Your task to perform on an android device: Open location settings Image 0: 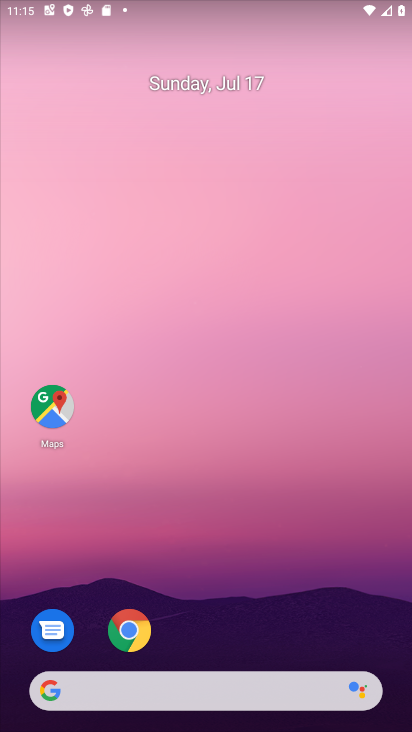
Step 0: drag from (302, 645) to (306, 45)
Your task to perform on an android device: Open location settings Image 1: 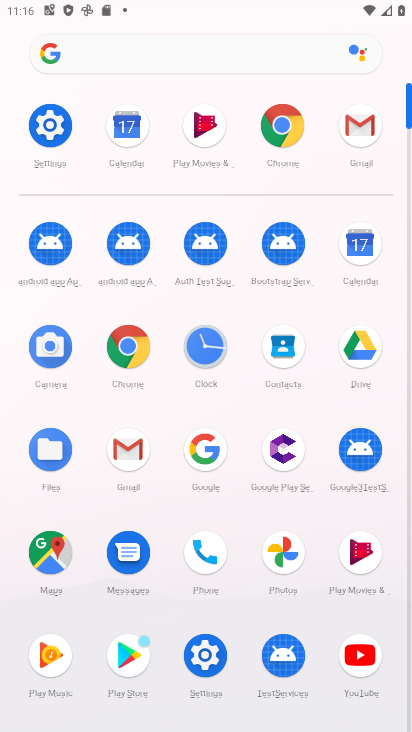
Step 1: click (201, 662)
Your task to perform on an android device: Open location settings Image 2: 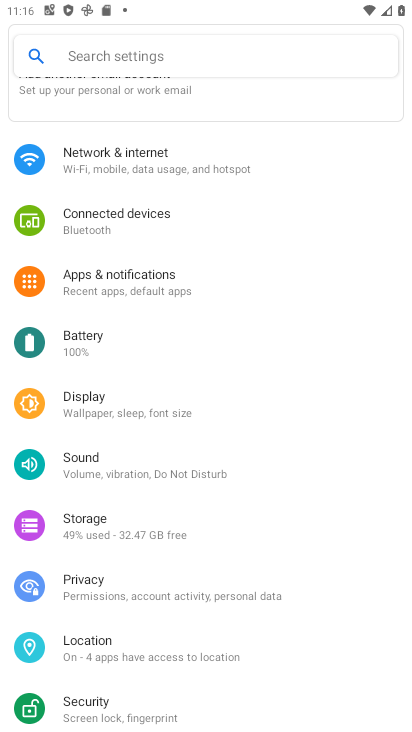
Step 2: click (145, 635)
Your task to perform on an android device: Open location settings Image 3: 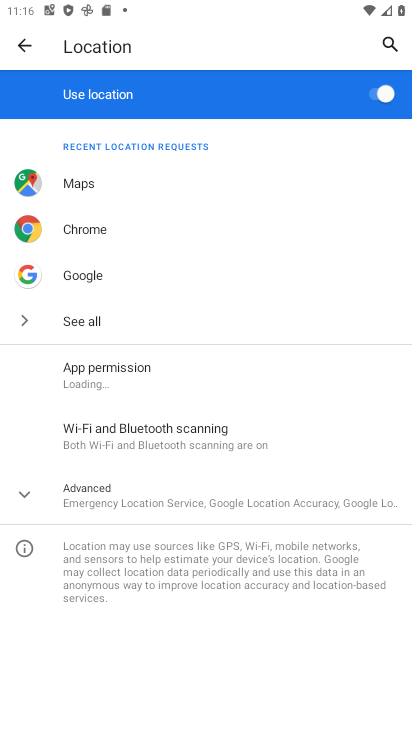
Step 3: task complete